Your task to perform on an android device: Open Youtube and go to "Your channel" Image 0: 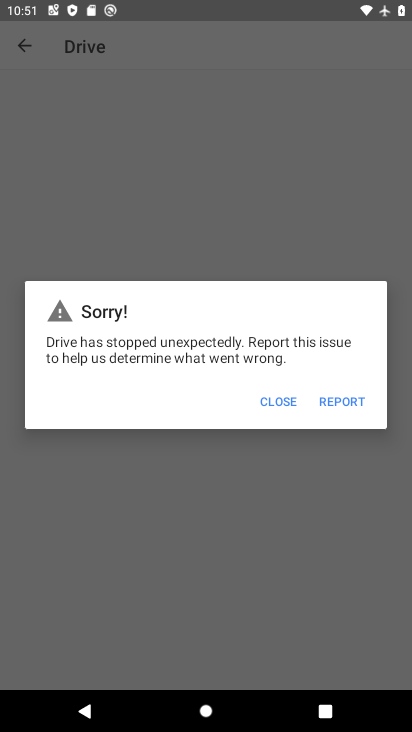
Step 0: press home button
Your task to perform on an android device: Open Youtube and go to "Your channel" Image 1: 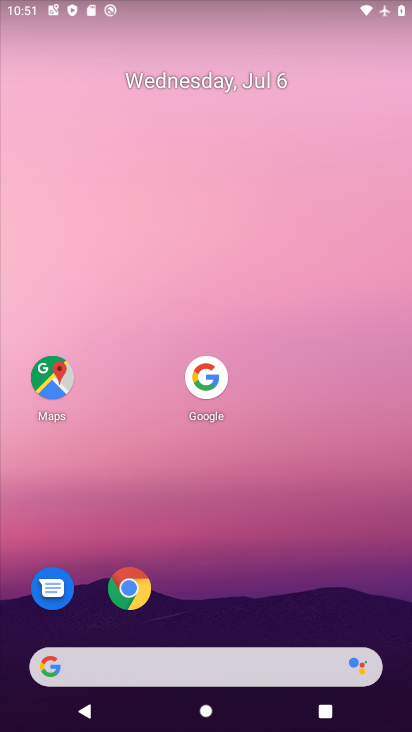
Step 1: drag from (254, 669) to (380, 19)
Your task to perform on an android device: Open Youtube and go to "Your channel" Image 2: 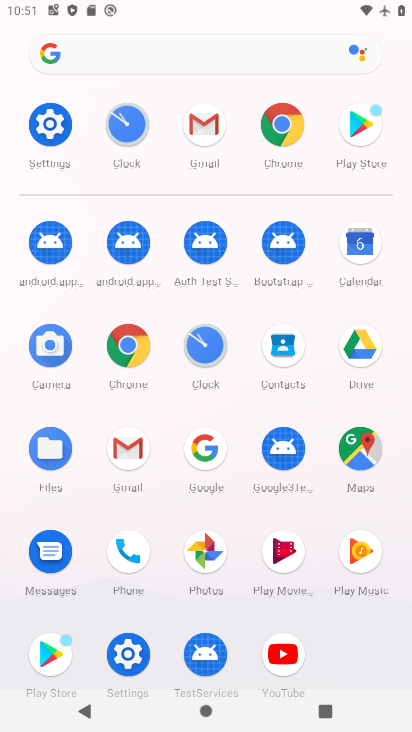
Step 2: click (278, 646)
Your task to perform on an android device: Open Youtube and go to "Your channel" Image 3: 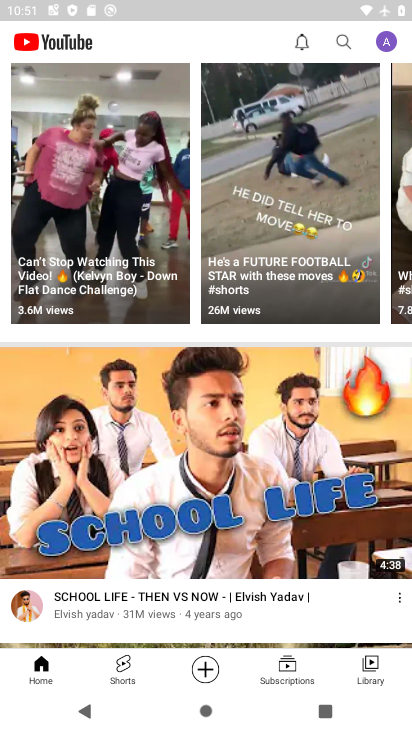
Step 3: click (381, 41)
Your task to perform on an android device: Open Youtube and go to "Your channel" Image 4: 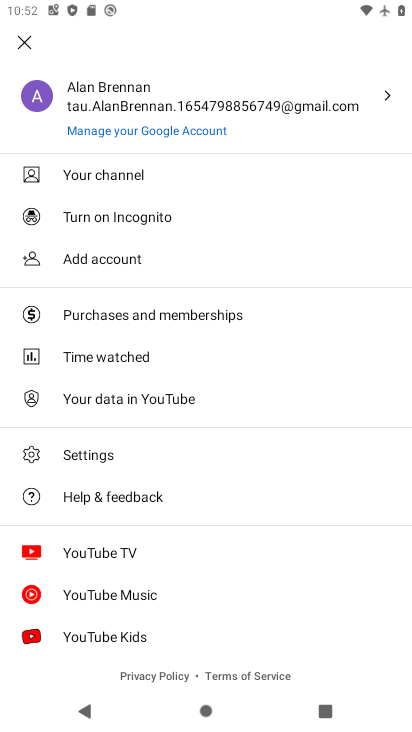
Step 4: click (146, 173)
Your task to perform on an android device: Open Youtube and go to "Your channel" Image 5: 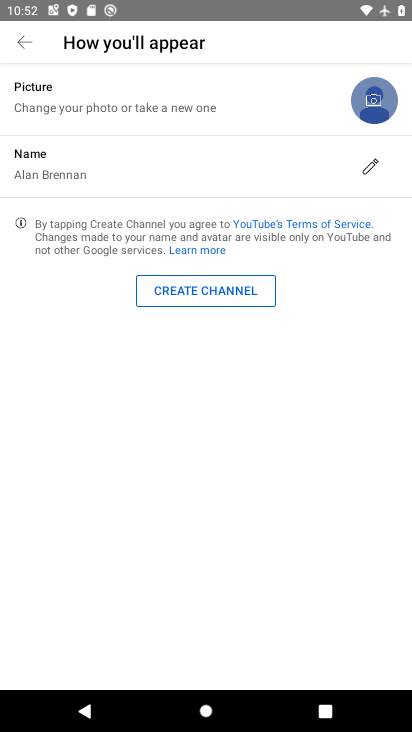
Step 5: task complete